Your task to perform on an android device: Open battery settings Image 0: 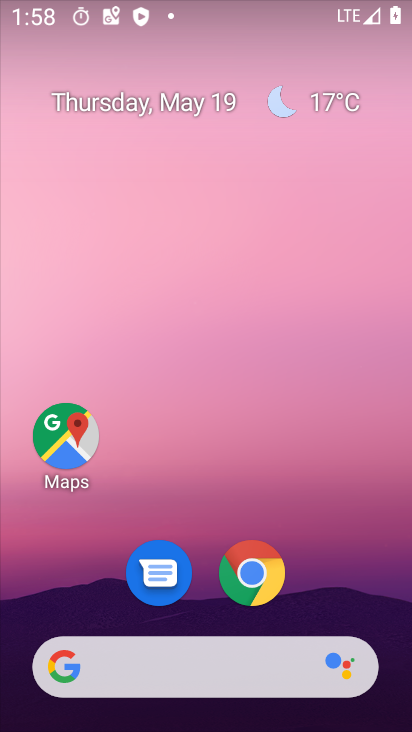
Step 0: drag from (90, 563) to (175, 79)
Your task to perform on an android device: Open battery settings Image 1: 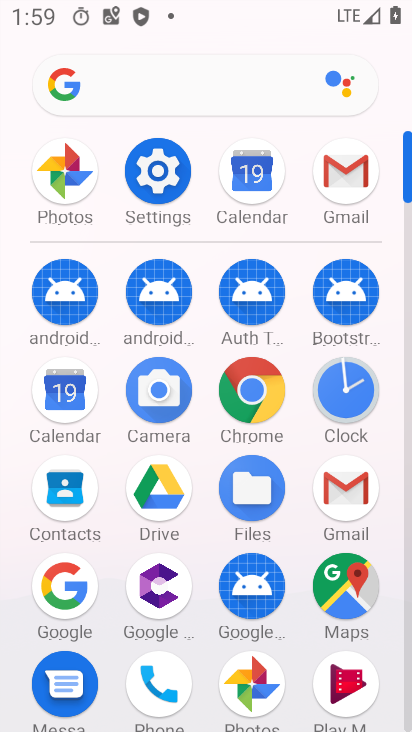
Step 1: click (166, 180)
Your task to perform on an android device: Open battery settings Image 2: 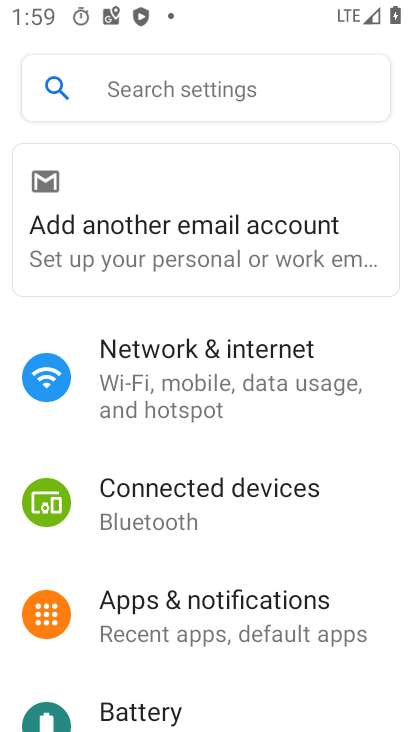
Step 2: click (147, 711)
Your task to perform on an android device: Open battery settings Image 3: 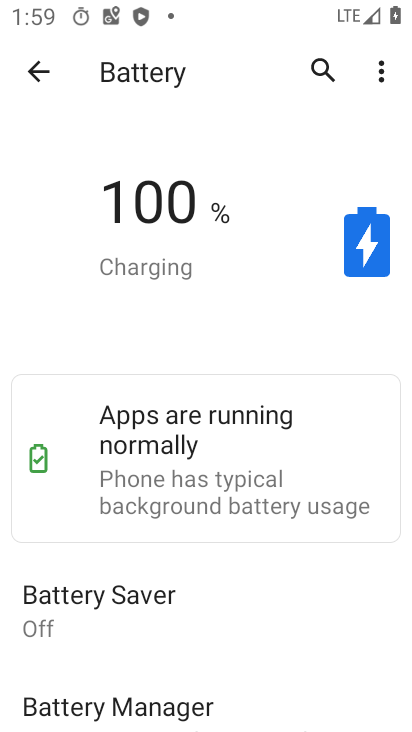
Step 3: task complete